Your task to perform on an android device: Open internet settings Image 0: 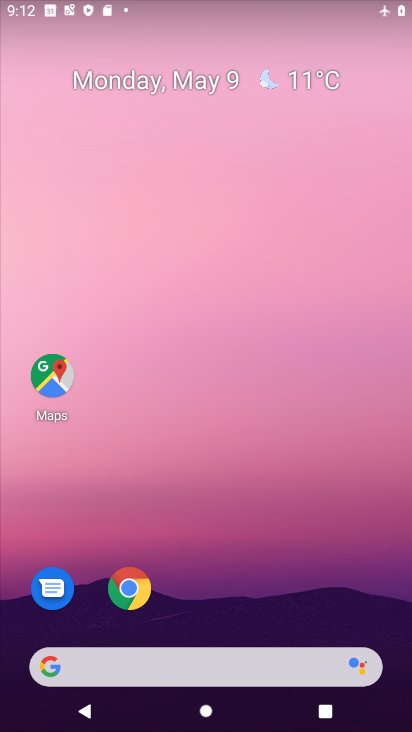
Step 0: drag from (159, 658) to (314, 44)
Your task to perform on an android device: Open internet settings Image 1: 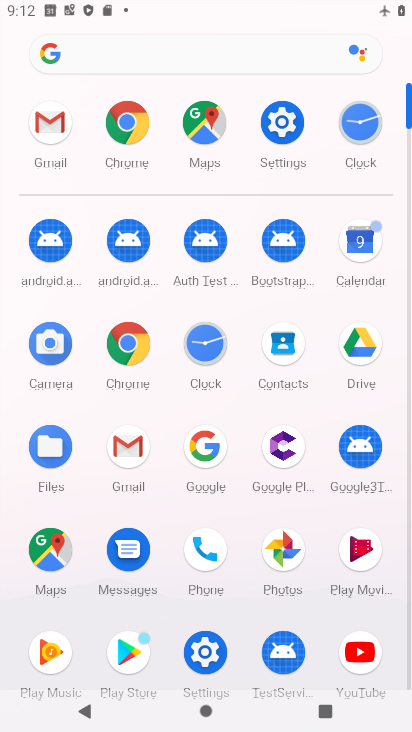
Step 1: click (281, 132)
Your task to perform on an android device: Open internet settings Image 2: 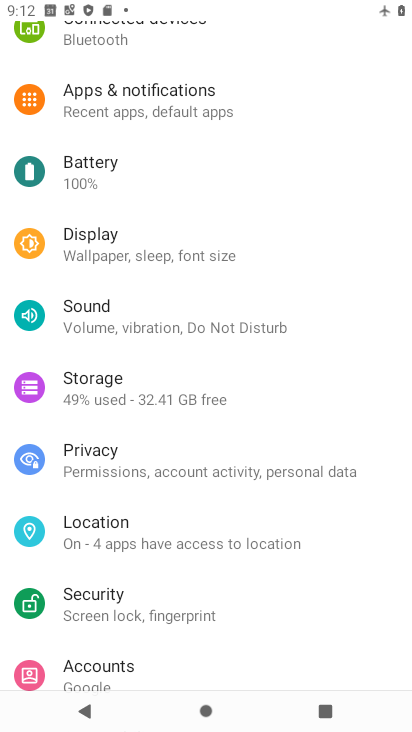
Step 2: drag from (300, 78) to (187, 418)
Your task to perform on an android device: Open internet settings Image 3: 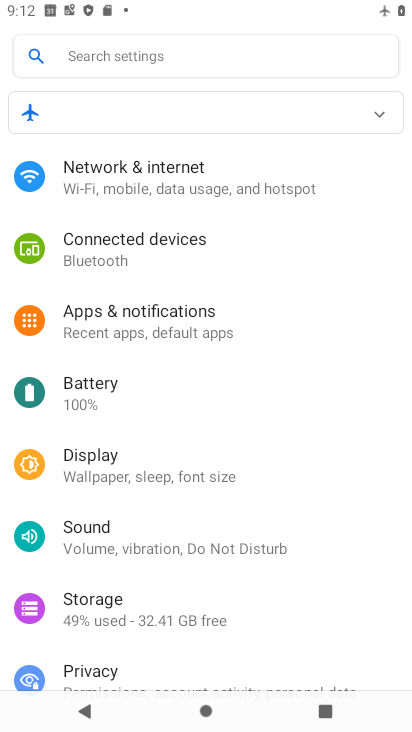
Step 3: click (178, 178)
Your task to perform on an android device: Open internet settings Image 4: 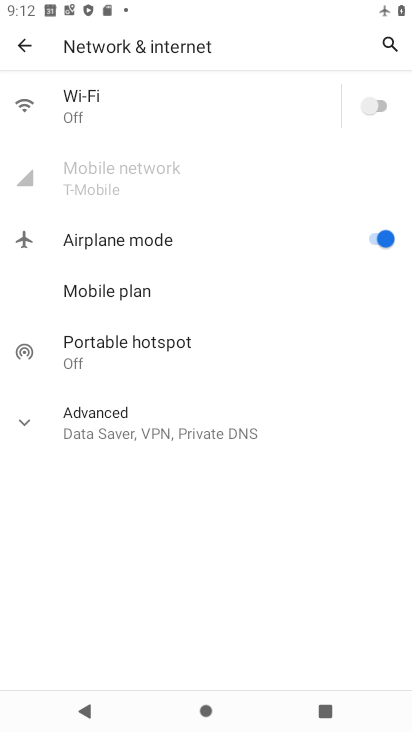
Step 4: click (106, 114)
Your task to perform on an android device: Open internet settings Image 5: 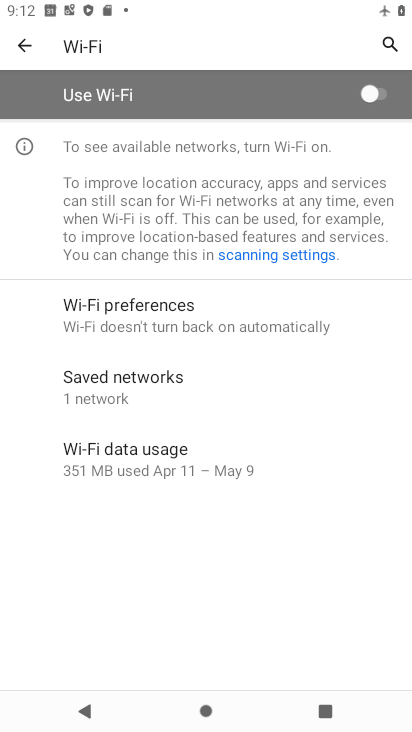
Step 5: task complete